Your task to perform on an android device: toggle notifications settings in the gmail app Image 0: 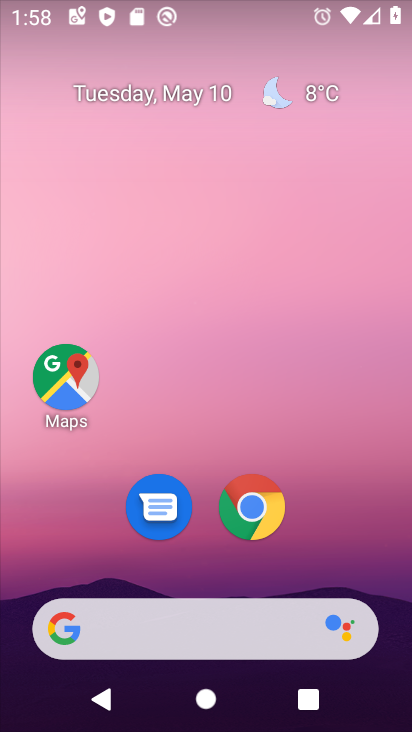
Step 0: drag from (223, 691) to (229, 70)
Your task to perform on an android device: toggle notifications settings in the gmail app Image 1: 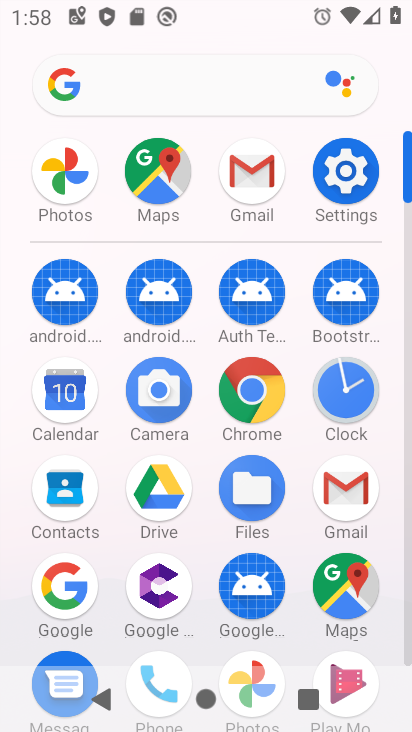
Step 1: click (340, 484)
Your task to perform on an android device: toggle notifications settings in the gmail app Image 2: 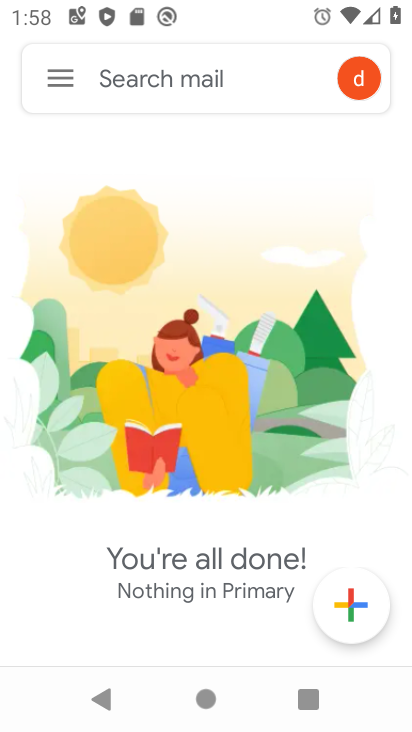
Step 2: click (62, 76)
Your task to perform on an android device: toggle notifications settings in the gmail app Image 3: 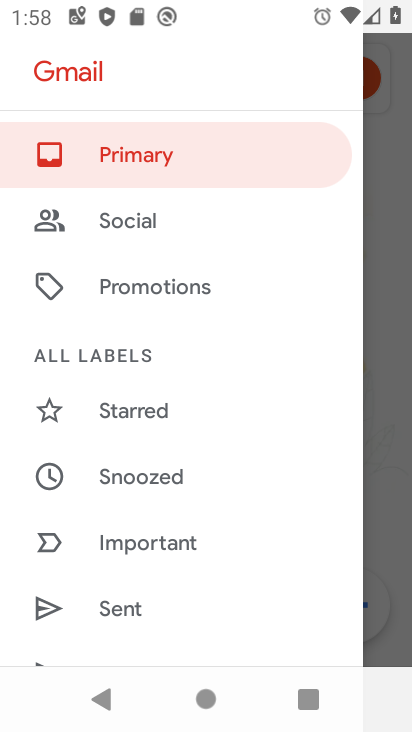
Step 3: drag from (165, 637) to (165, 298)
Your task to perform on an android device: toggle notifications settings in the gmail app Image 4: 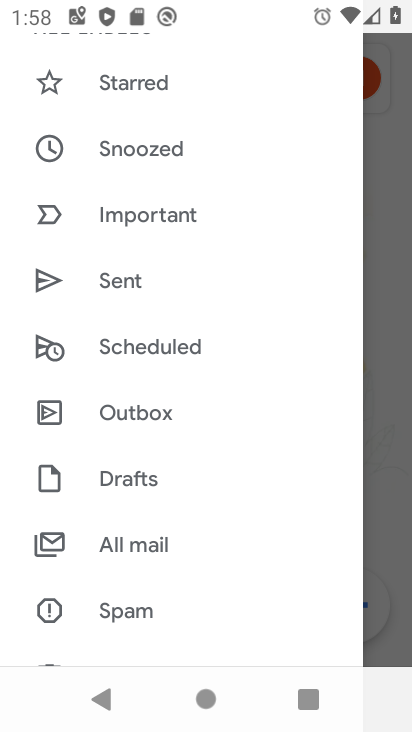
Step 4: drag from (150, 642) to (182, 244)
Your task to perform on an android device: toggle notifications settings in the gmail app Image 5: 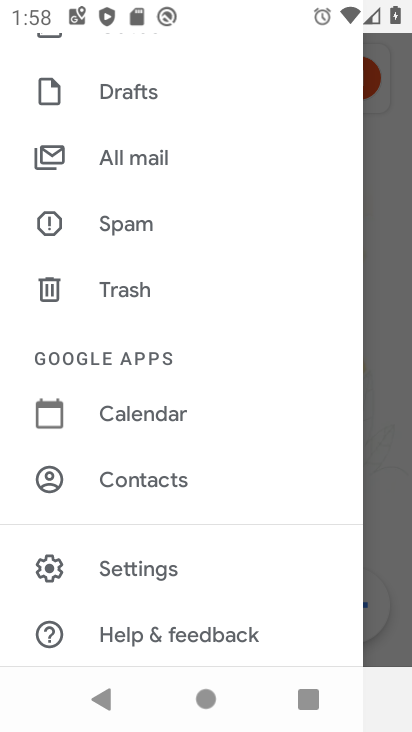
Step 5: click (149, 571)
Your task to perform on an android device: toggle notifications settings in the gmail app Image 6: 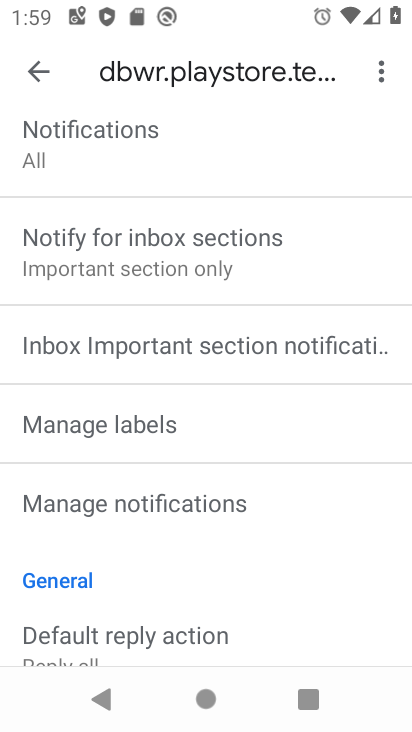
Step 6: drag from (251, 123) to (241, 450)
Your task to perform on an android device: toggle notifications settings in the gmail app Image 7: 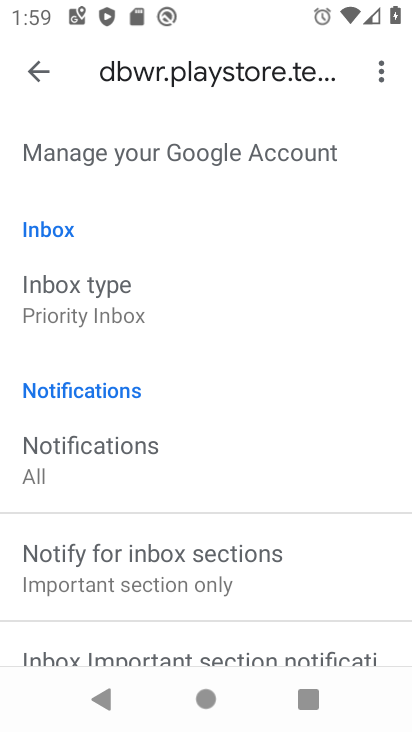
Step 7: click (117, 444)
Your task to perform on an android device: toggle notifications settings in the gmail app Image 8: 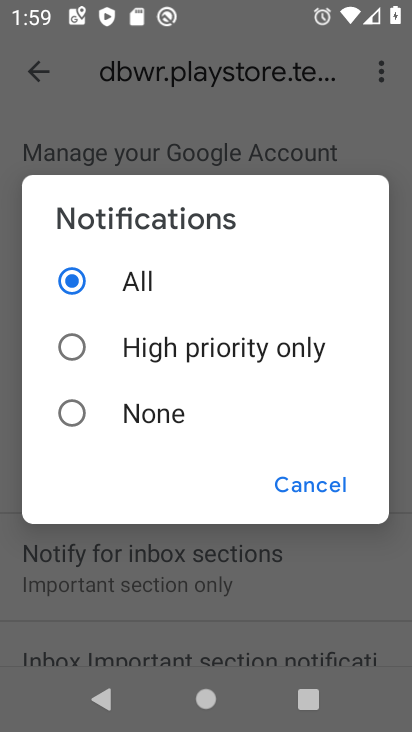
Step 8: click (77, 346)
Your task to perform on an android device: toggle notifications settings in the gmail app Image 9: 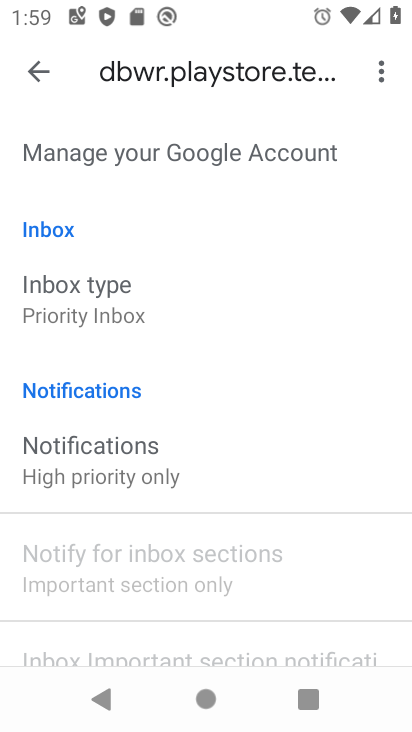
Step 9: task complete